Your task to perform on an android device: turn on the 12-hour format for clock Image 0: 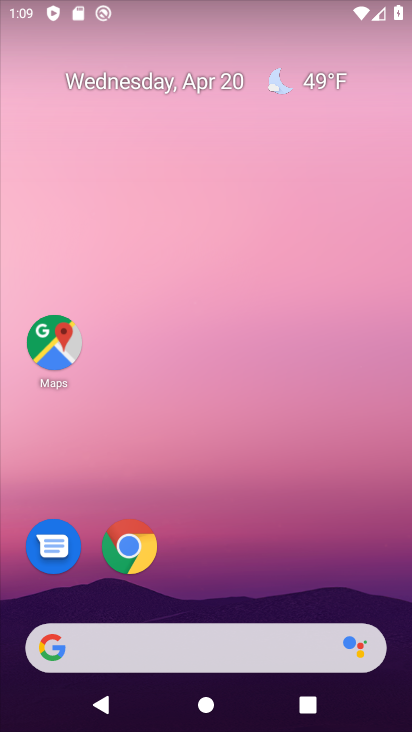
Step 0: drag from (224, 546) to (298, 39)
Your task to perform on an android device: turn on the 12-hour format for clock Image 1: 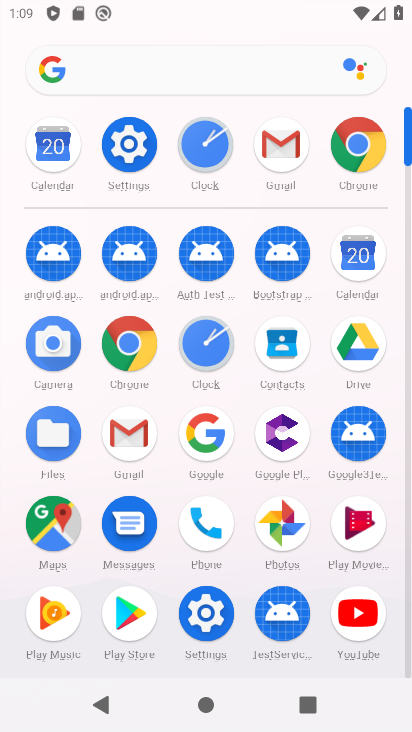
Step 1: click (212, 342)
Your task to perform on an android device: turn on the 12-hour format for clock Image 2: 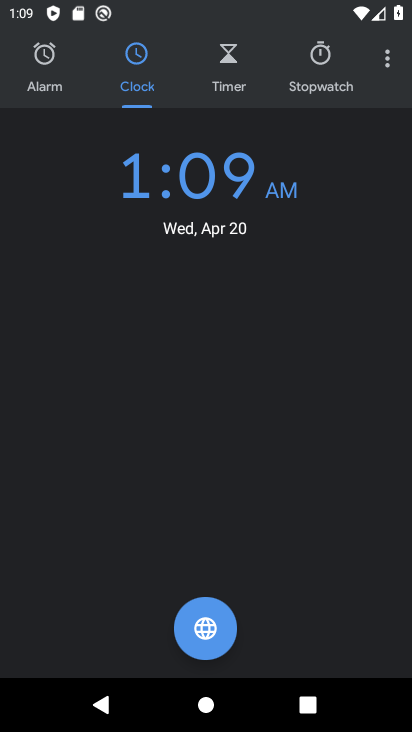
Step 2: click (384, 55)
Your task to perform on an android device: turn on the 12-hour format for clock Image 3: 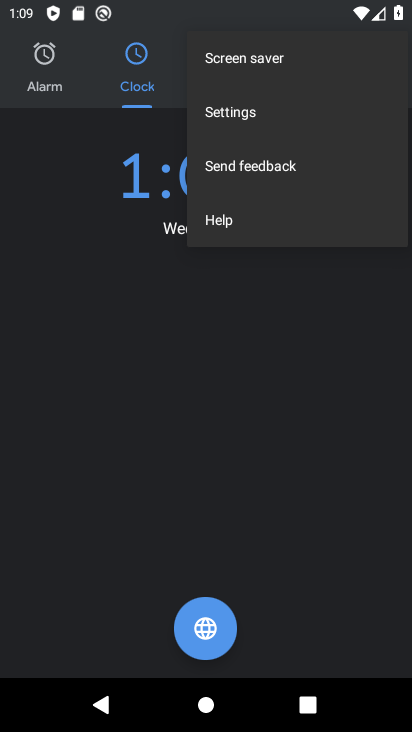
Step 3: click (244, 119)
Your task to perform on an android device: turn on the 12-hour format for clock Image 4: 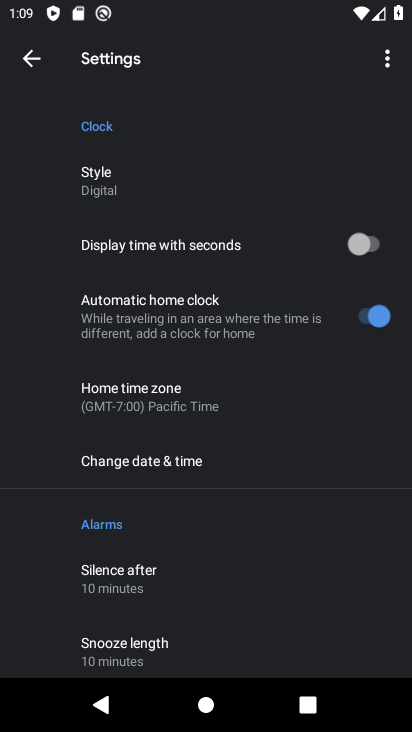
Step 4: drag from (140, 613) to (249, 82)
Your task to perform on an android device: turn on the 12-hour format for clock Image 5: 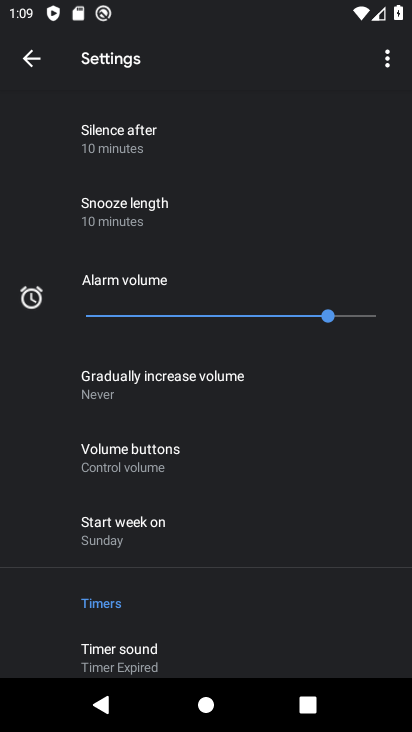
Step 5: drag from (187, 571) to (300, 124)
Your task to perform on an android device: turn on the 12-hour format for clock Image 6: 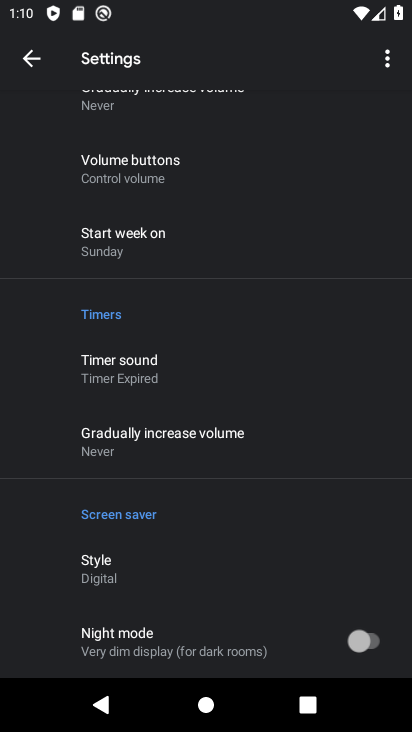
Step 6: drag from (183, 199) to (117, 672)
Your task to perform on an android device: turn on the 12-hour format for clock Image 7: 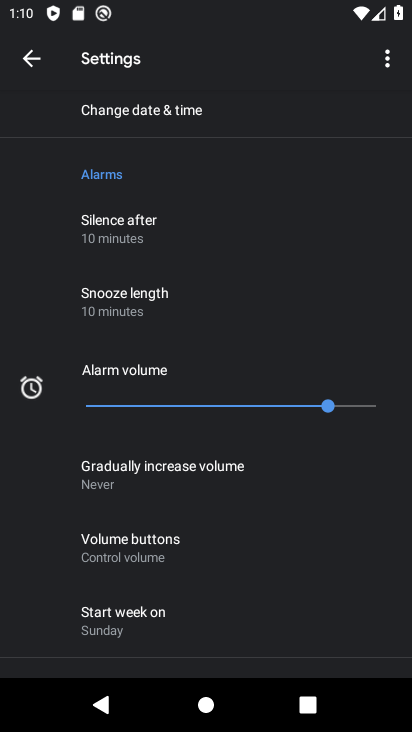
Step 7: click (157, 113)
Your task to perform on an android device: turn on the 12-hour format for clock Image 8: 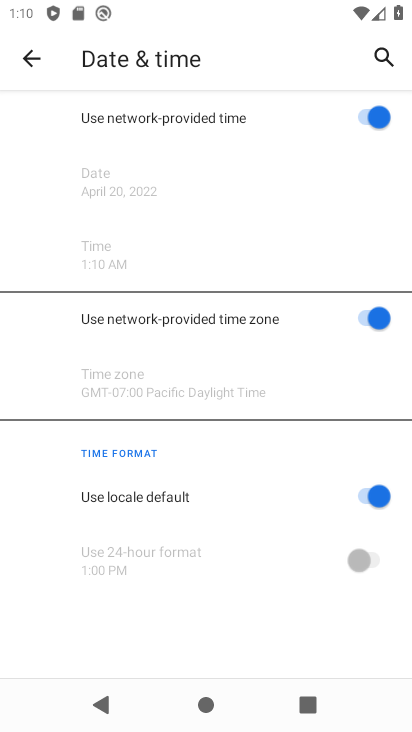
Step 8: task complete